Your task to perform on an android device: open wifi settings Image 0: 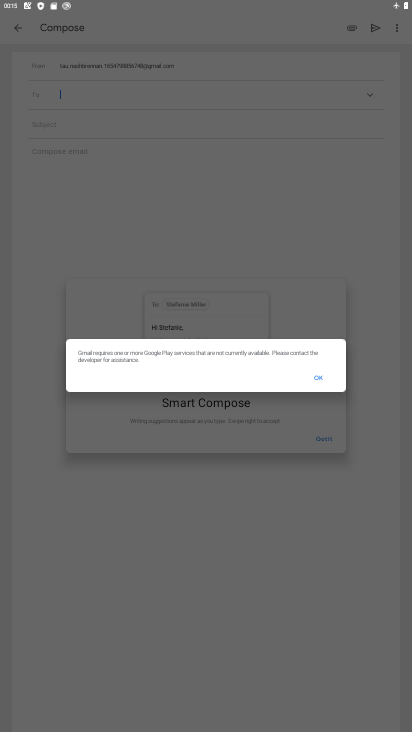
Step 0: press home button
Your task to perform on an android device: open wifi settings Image 1: 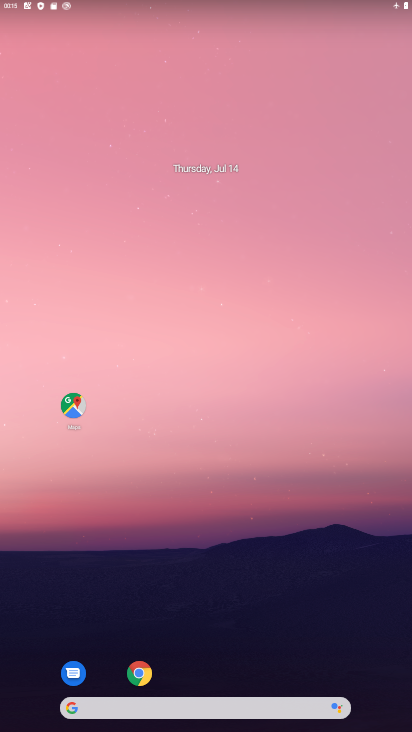
Step 1: drag from (201, 679) to (195, 130)
Your task to perform on an android device: open wifi settings Image 2: 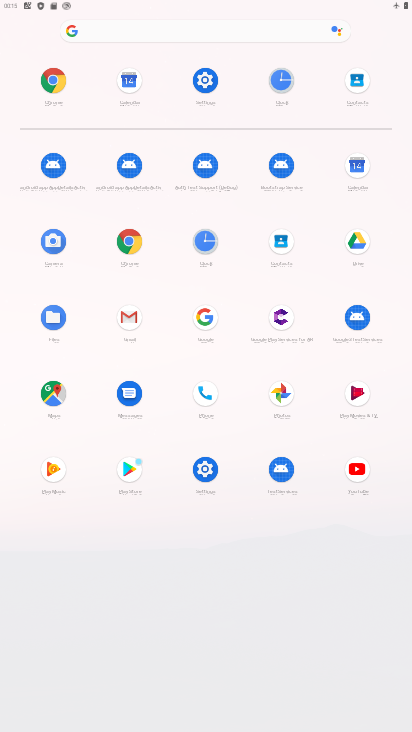
Step 2: click (205, 93)
Your task to perform on an android device: open wifi settings Image 3: 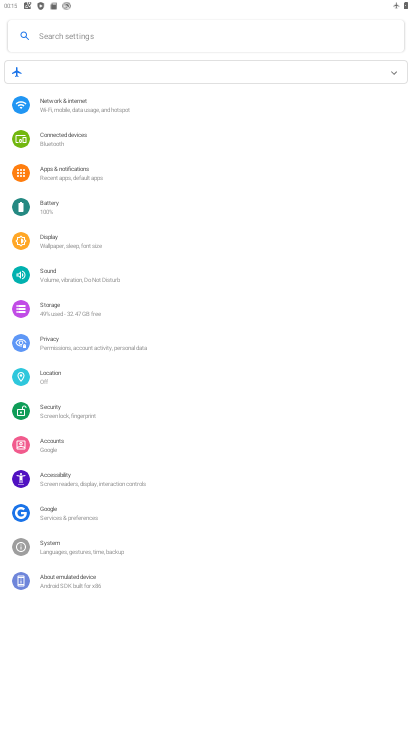
Step 3: click (109, 99)
Your task to perform on an android device: open wifi settings Image 4: 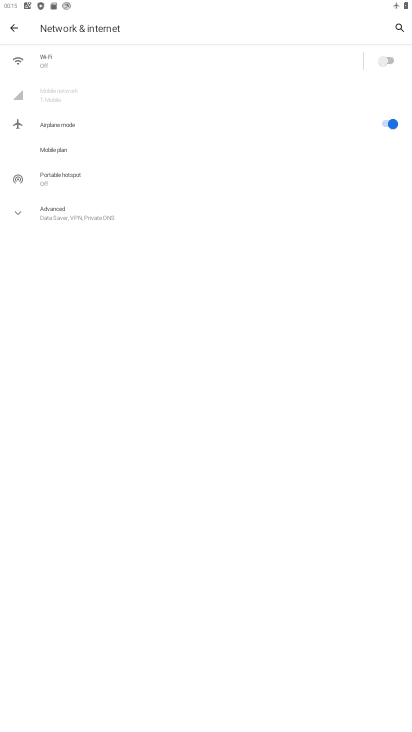
Step 4: click (75, 64)
Your task to perform on an android device: open wifi settings Image 5: 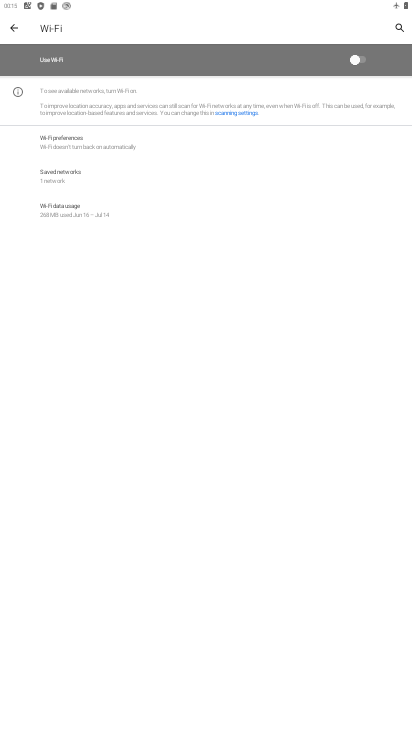
Step 5: task complete